Your task to perform on an android device: add a label to a message in the gmail app Image 0: 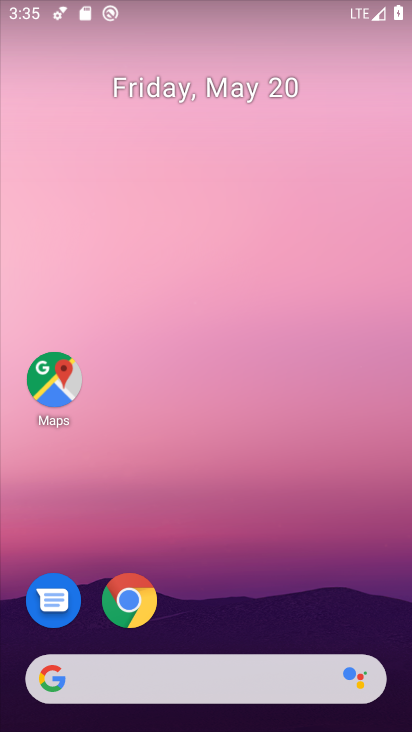
Step 0: drag from (352, 630) to (369, 174)
Your task to perform on an android device: add a label to a message in the gmail app Image 1: 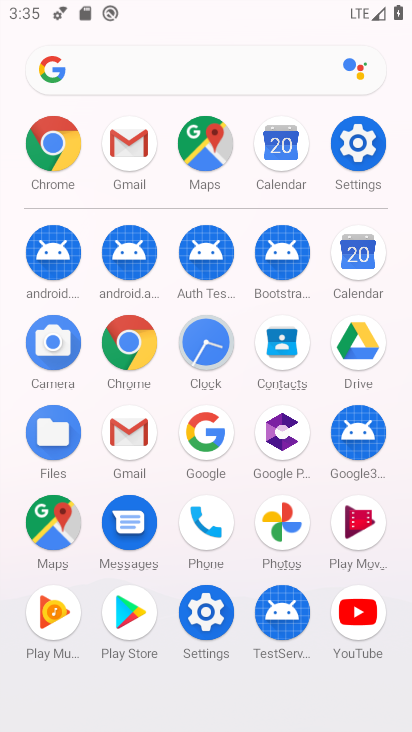
Step 1: click (122, 429)
Your task to perform on an android device: add a label to a message in the gmail app Image 2: 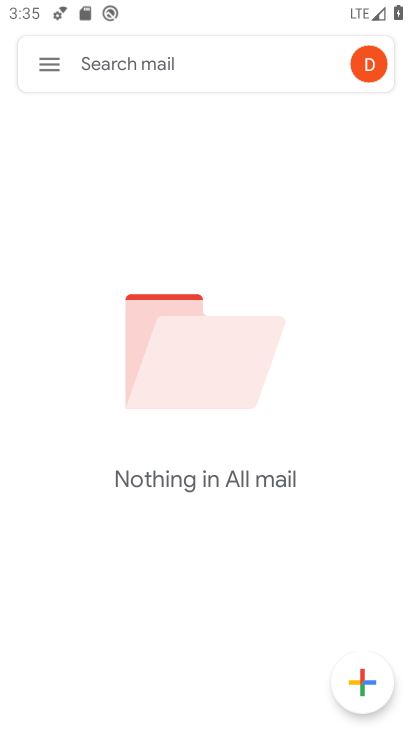
Step 2: click (44, 70)
Your task to perform on an android device: add a label to a message in the gmail app Image 3: 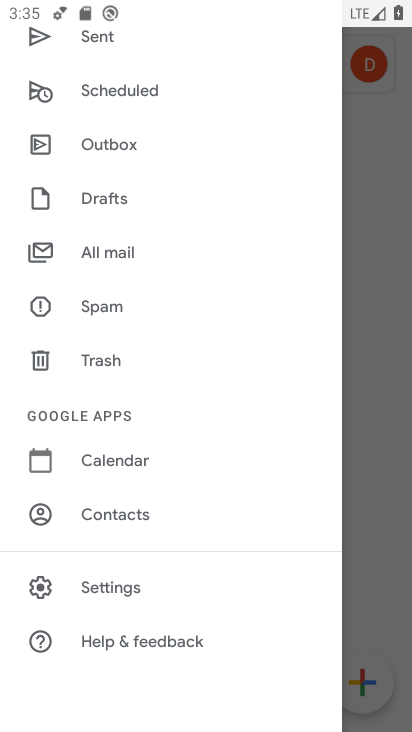
Step 3: drag from (268, 411) to (272, 479)
Your task to perform on an android device: add a label to a message in the gmail app Image 4: 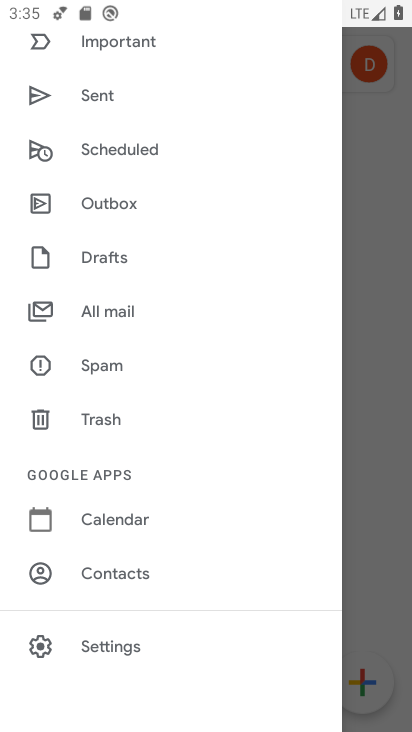
Step 4: drag from (262, 341) to (256, 431)
Your task to perform on an android device: add a label to a message in the gmail app Image 5: 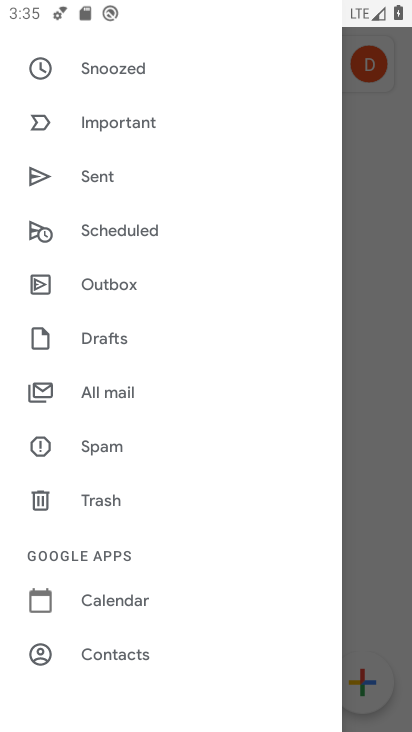
Step 5: drag from (248, 298) to (255, 401)
Your task to perform on an android device: add a label to a message in the gmail app Image 6: 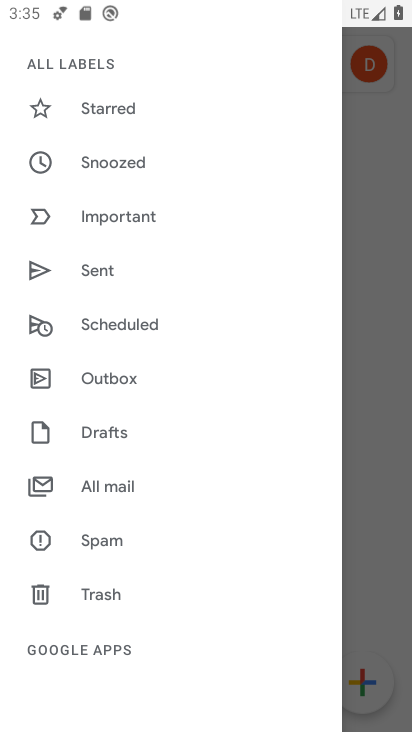
Step 6: drag from (255, 236) to (245, 346)
Your task to perform on an android device: add a label to a message in the gmail app Image 7: 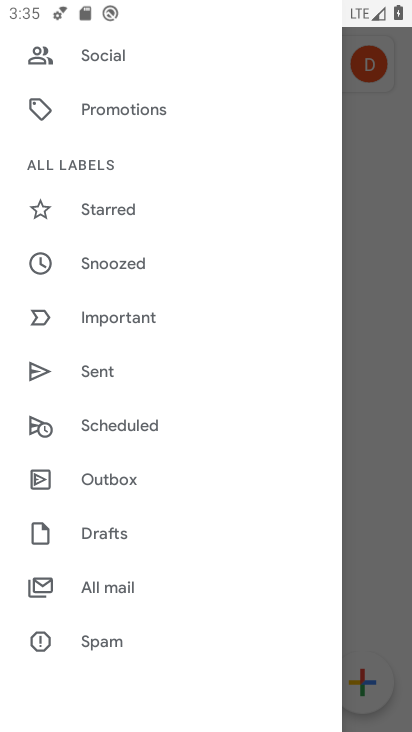
Step 7: drag from (241, 188) to (239, 287)
Your task to perform on an android device: add a label to a message in the gmail app Image 8: 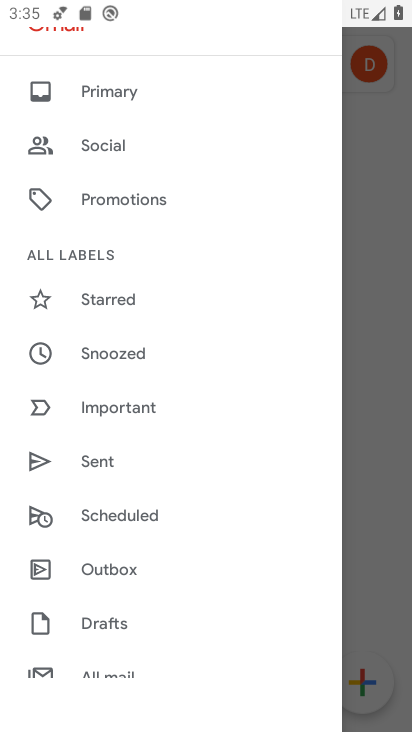
Step 8: drag from (234, 179) to (228, 268)
Your task to perform on an android device: add a label to a message in the gmail app Image 9: 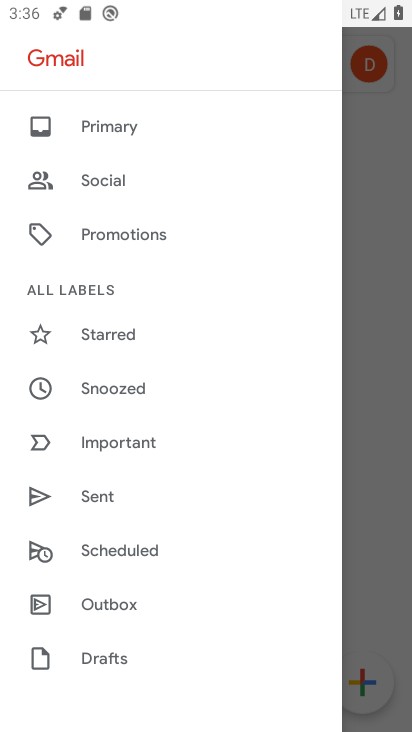
Step 9: click (148, 129)
Your task to perform on an android device: add a label to a message in the gmail app Image 10: 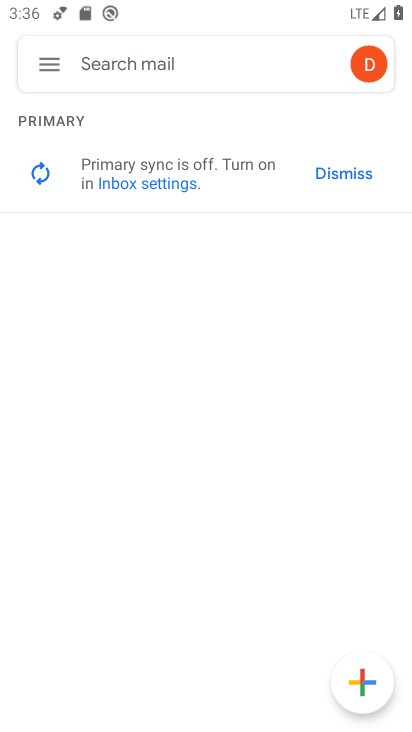
Step 10: task complete